Your task to perform on an android device: turn pop-ups off in chrome Image 0: 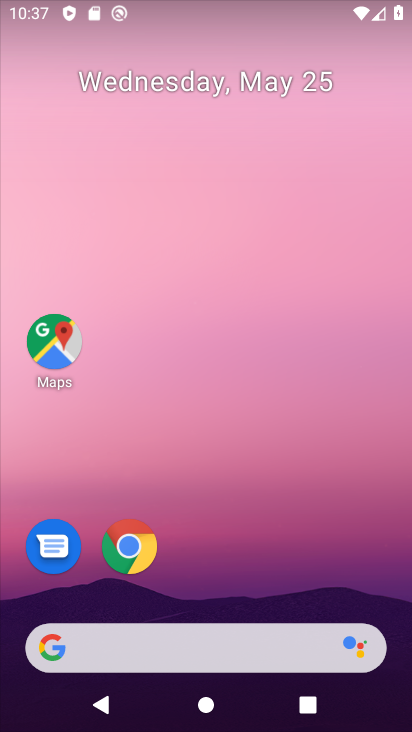
Step 0: click (108, 542)
Your task to perform on an android device: turn pop-ups off in chrome Image 1: 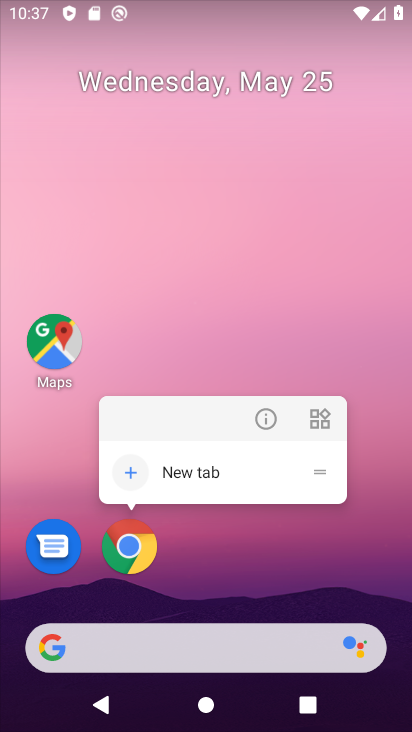
Step 1: click (129, 551)
Your task to perform on an android device: turn pop-ups off in chrome Image 2: 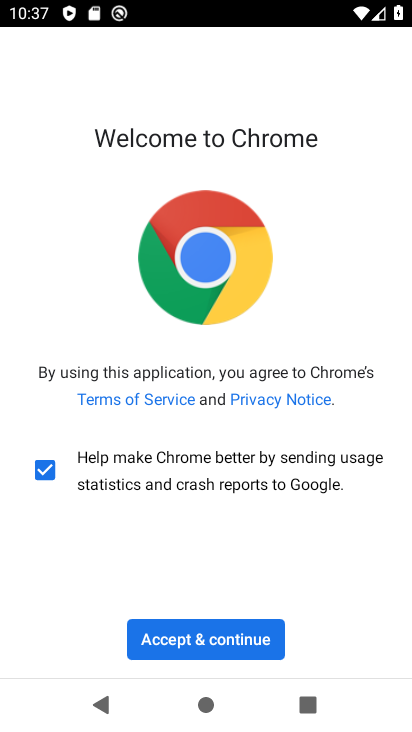
Step 2: click (204, 632)
Your task to perform on an android device: turn pop-ups off in chrome Image 3: 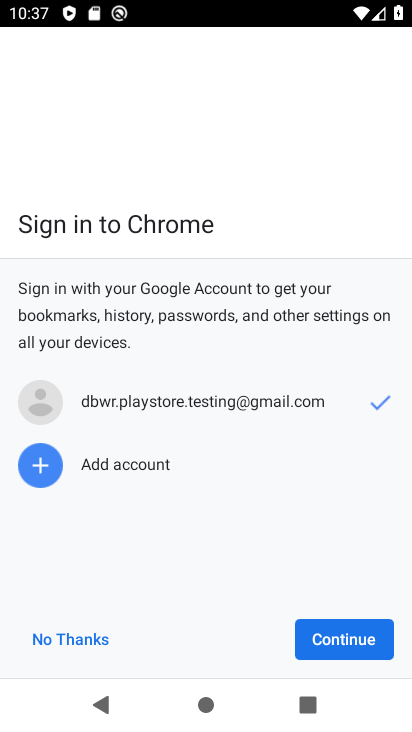
Step 3: click (319, 633)
Your task to perform on an android device: turn pop-ups off in chrome Image 4: 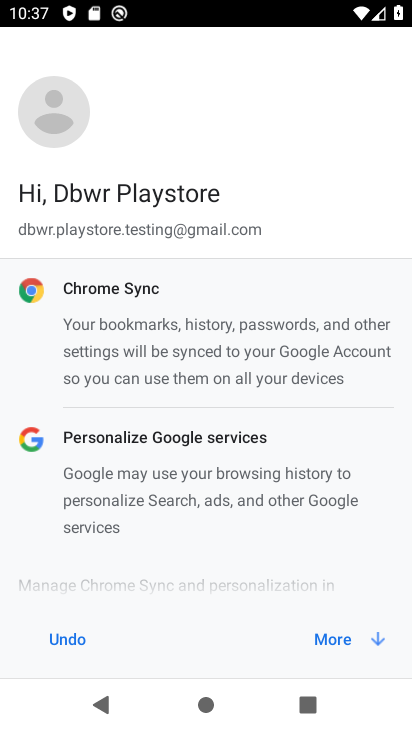
Step 4: click (381, 638)
Your task to perform on an android device: turn pop-ups off in chrome Image 5: 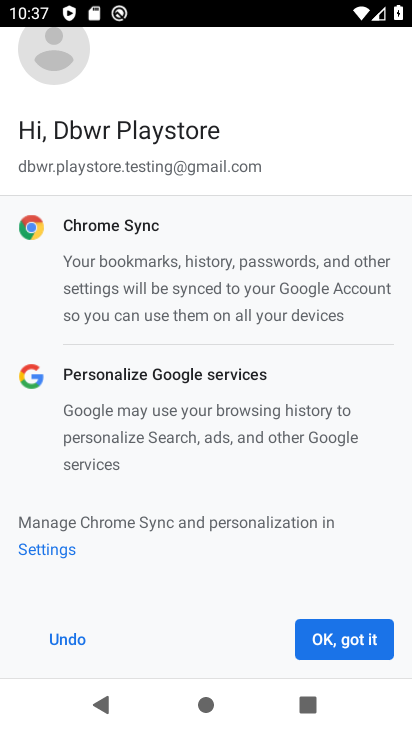
Step 5: click (381, 638)
Your task to perform on an android device: turn pop-ups off in chrome Image 6: 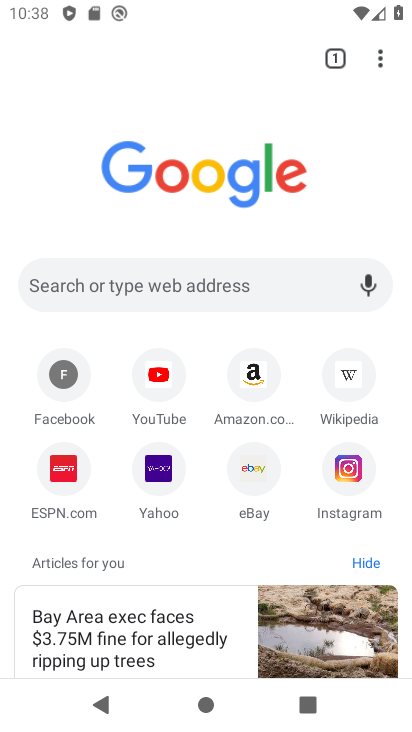
Step 6: drag from (377, 52) to (170, 499)
Your task to perform on an android device: turn pop-ups off in chrome Image 7: 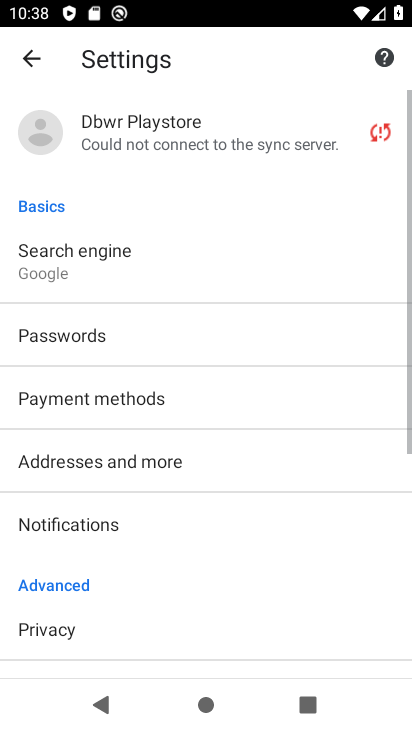
Step 7: drag from (165, 628) to (160, 205)
Your task to perform on an android device: turn pop-ups off in chrome Image 8: 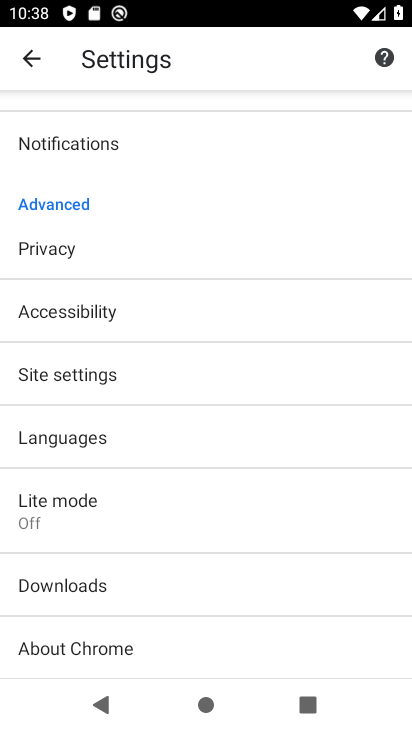
Step 8: click (115, 369)
Your task to perform on an android device: turn pop-ups off in chrome Image 9: 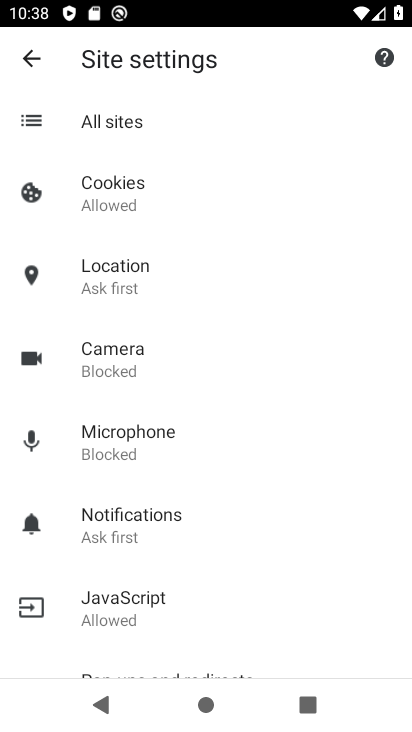
Step 9: drag from (254, 568) to (241, 210)
Your task to perform on an android device: turn pop-ups off in chrome Image 10: 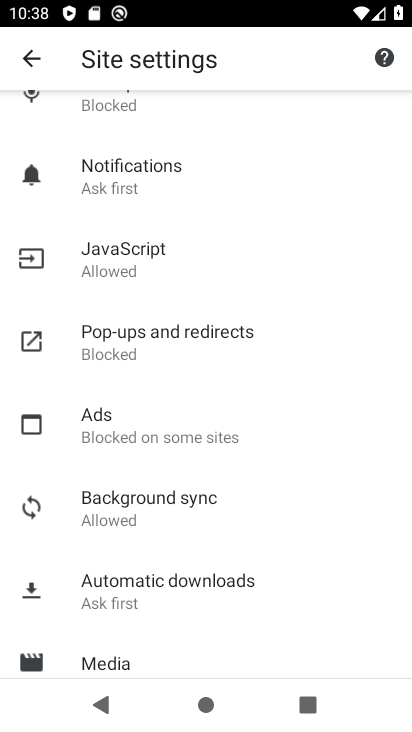
Step 10: click (146, 333)
Your task to perform on an android device: turn pop-ups off in chrome Image 11: 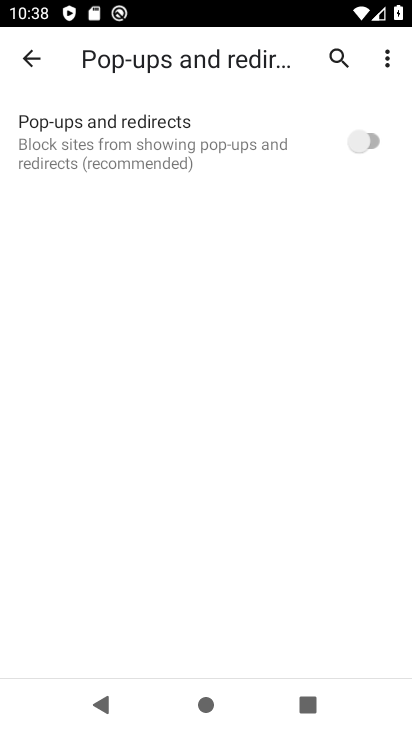
Step 11: task complete